Your task to perform on an android device: Open calendar and show me the first week of next month Image 0: 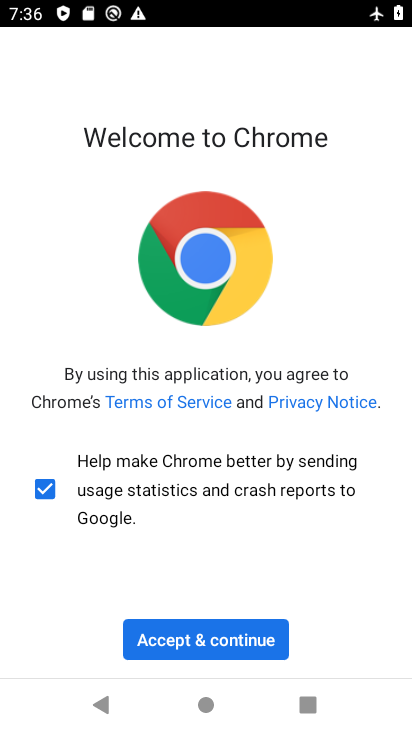
Step 0: press back button
Your task to perform on an android device: Open calendar and show me the first week of next month Image 1: 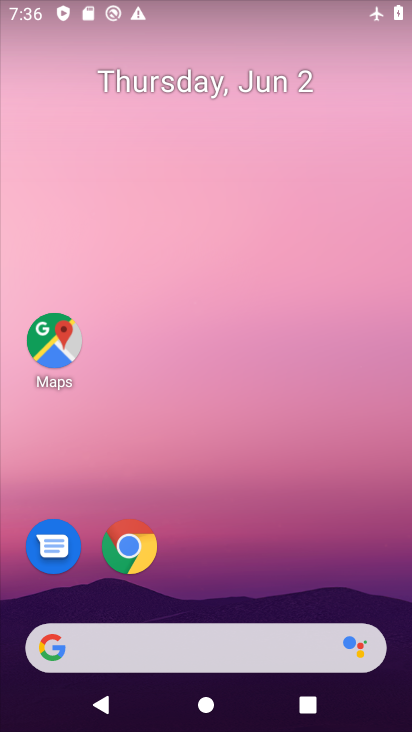
Step 1: drag from (278, 688) to (100, 28)
Your task to perform on an android device: Open calendar and show me the first week of next month Image 2: 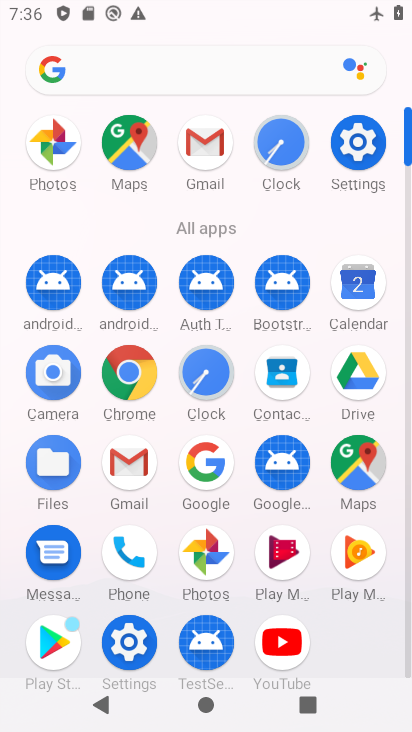
Step 2: click (352, 278)
Your task to perform on an android device: Open calendar and show me the first week of next month Image 3: 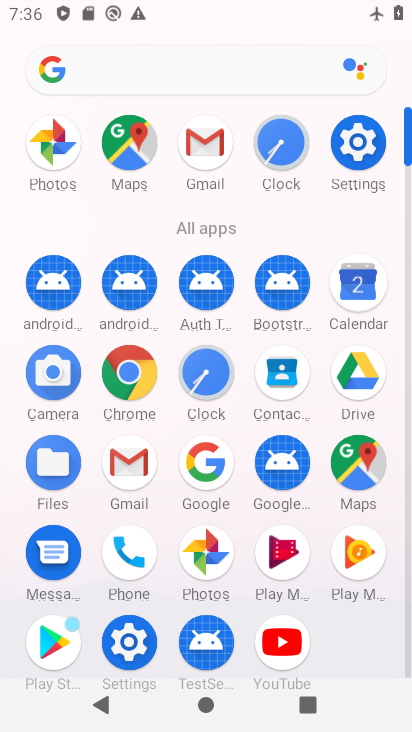
Step 3: click (353, 279)
Your task to perform on an android device: Open calendar and show me the first week of next month Image 4: 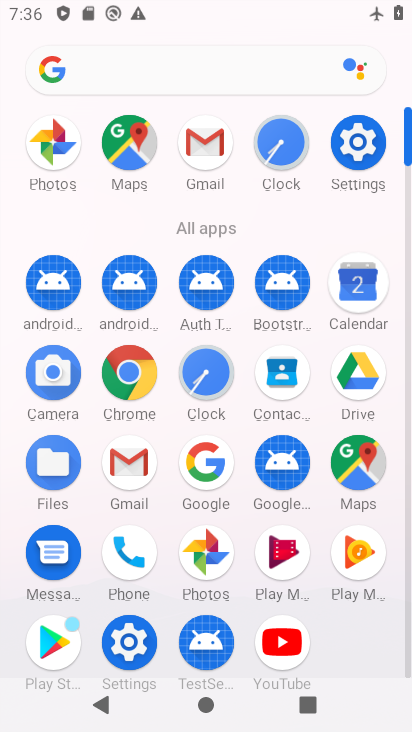
Step 4: click (353, 279)
Your task to perform on an android device: Open calendar and show me the first week of next month Image 5: 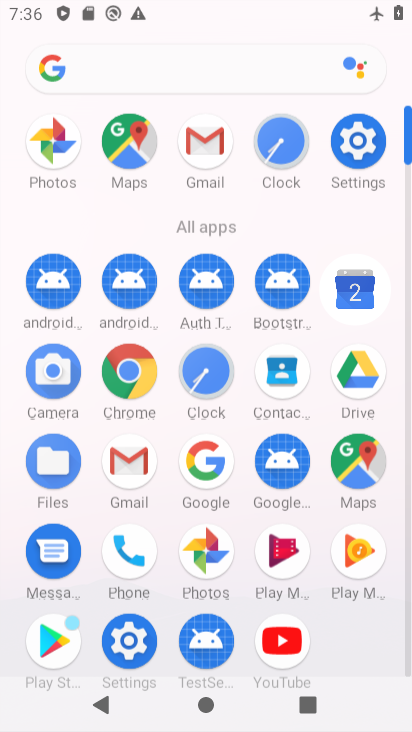
Step 5: click (362, 277)
Your task to perform on an android device: Open calendar and show me the first week of next month Image 6: 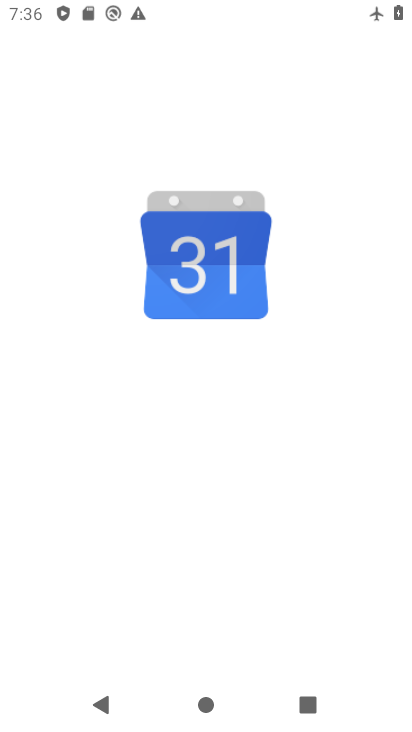
Step 6: click (364, 276)
Your task to perform on an android device: Open calendar and show me the first week of next month Image 7: 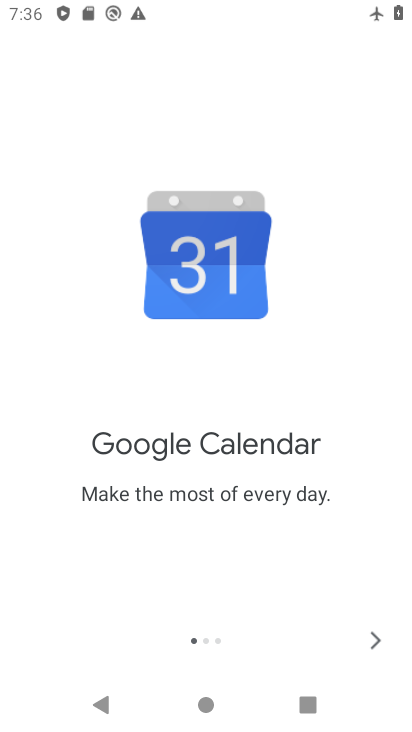
Step 7: click (372, 642)
Your task to perform on an android device: Open calendar and show me the first week of next month Image 8: 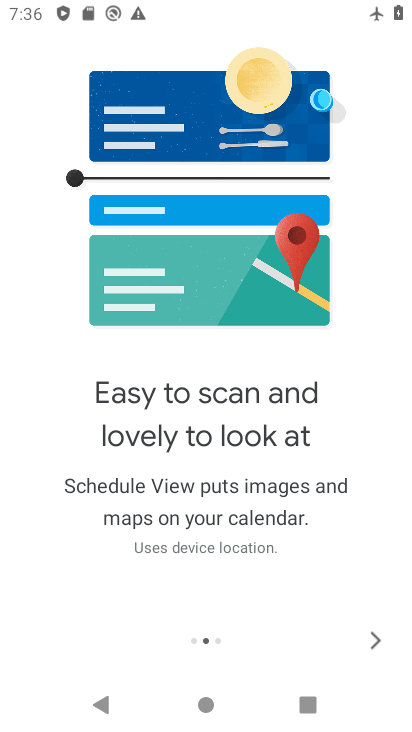
Step 8: click (371, 633)
Your task to perform on an android device: Open calendar and show me the first week of next month Image 9: 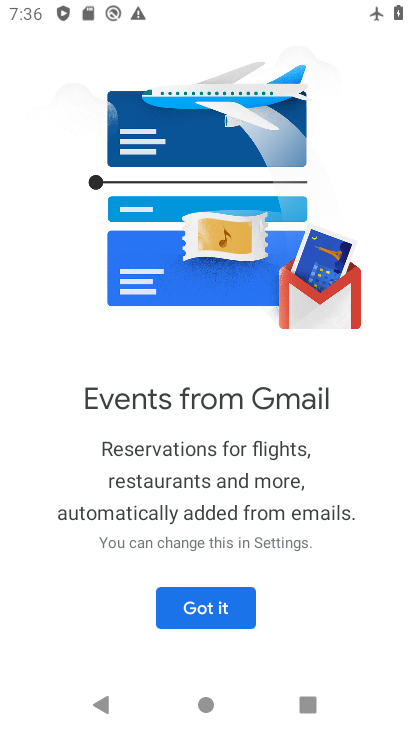
Step 9: click (233, 613)
Your task to perform on an android device: Open calendar and show me the first week of next month Image 10: 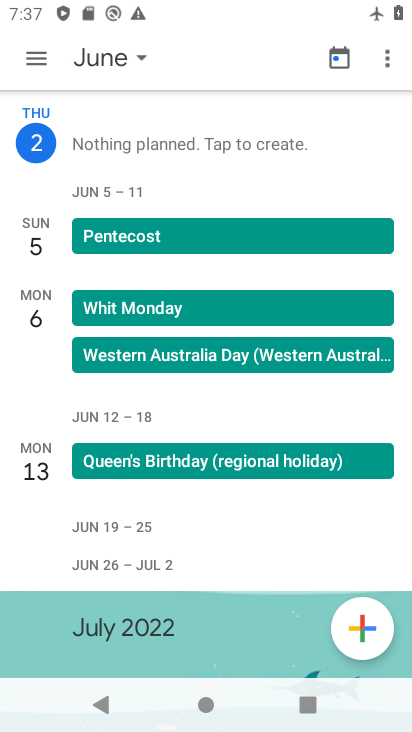
Step 10: click (140, 55)
Your task to perform on an android device: Open calendar and show me the first week of next month Image 11: 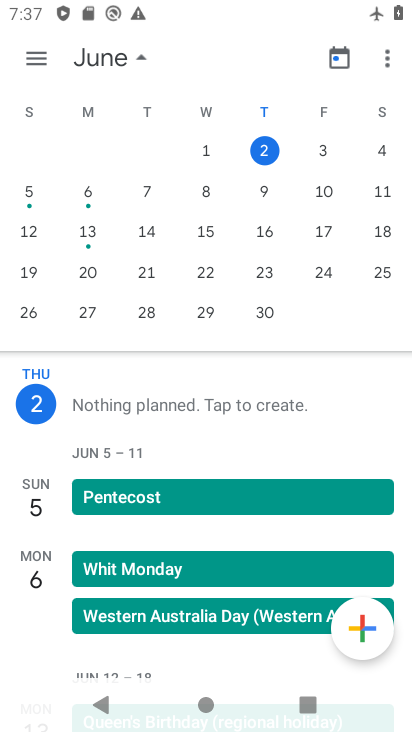
Step 11: task complete